Your task to perform on an android device: see tabs open on other devices in the chrome app Image 0: 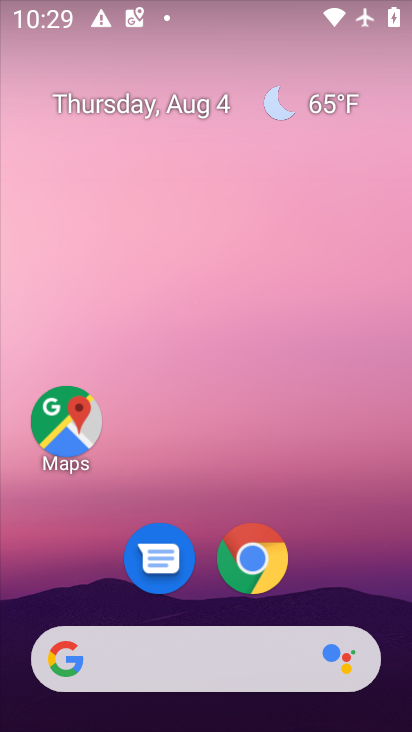
Step 0: drag from (384, 592) to (301, 137)
Your task to perform on an android device: see tabs open on other devices in the chrome app Image 1: 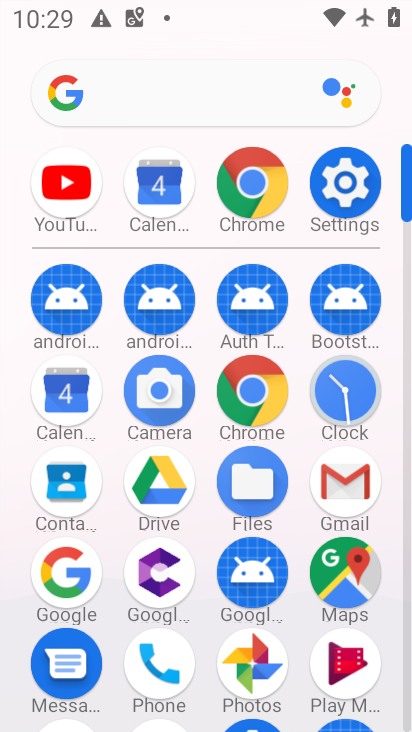
Step 1: click (253, 391)
Your task to perform on an android device: see tabs open on other devices in the chrome app Image 2: 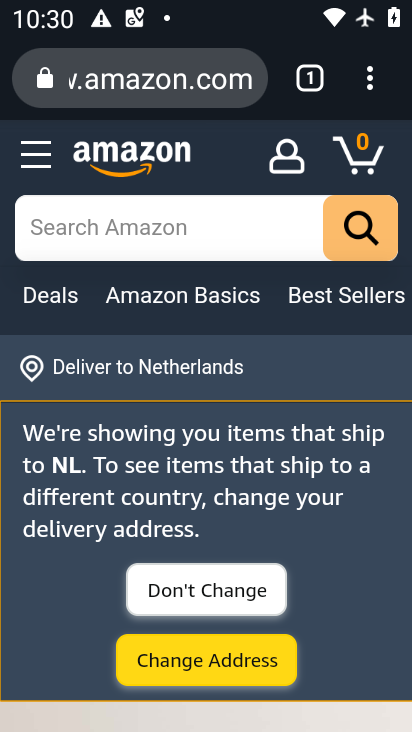
Step 2: task complete